Your task to perform on an android device: turn off wifi Image 0: 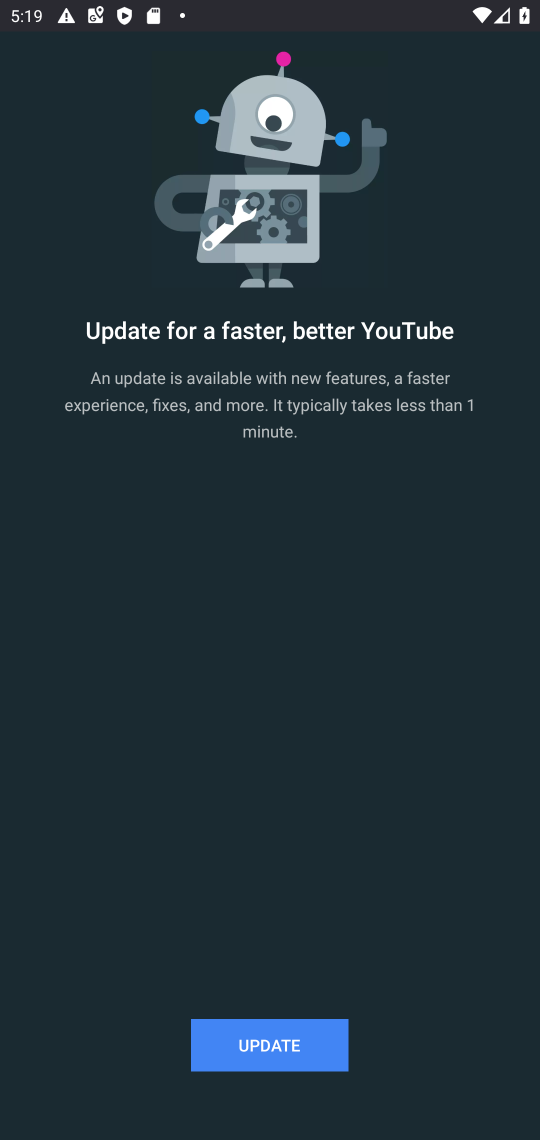
Step 0: press home button
Your task to perform on an android device: turn off wifi Image 1: 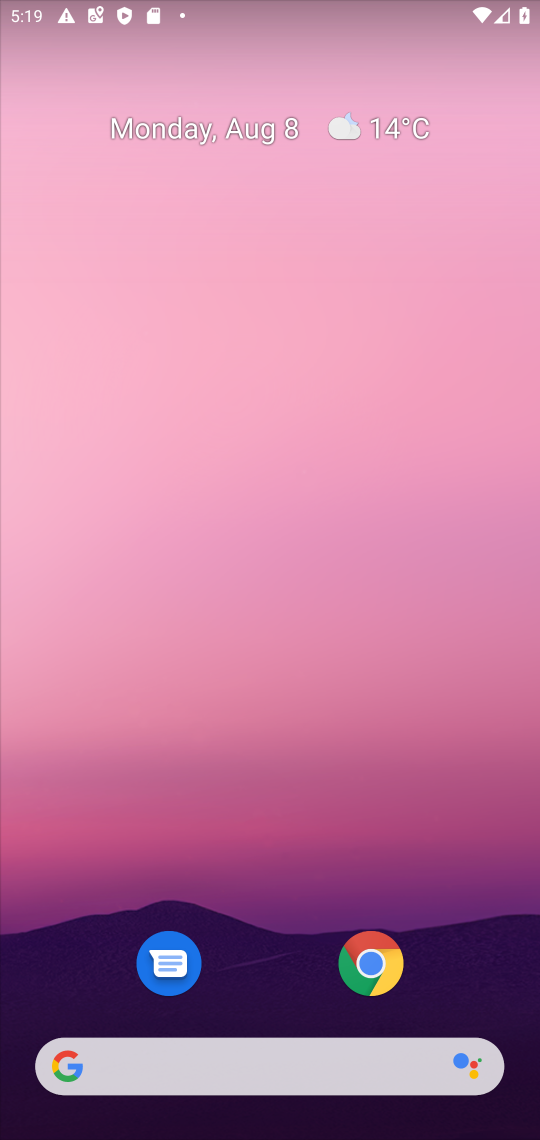
Step 1: drag from (239, 939) to (267, 264)
Your task to perform on an android device: turn off wifi Image 2: 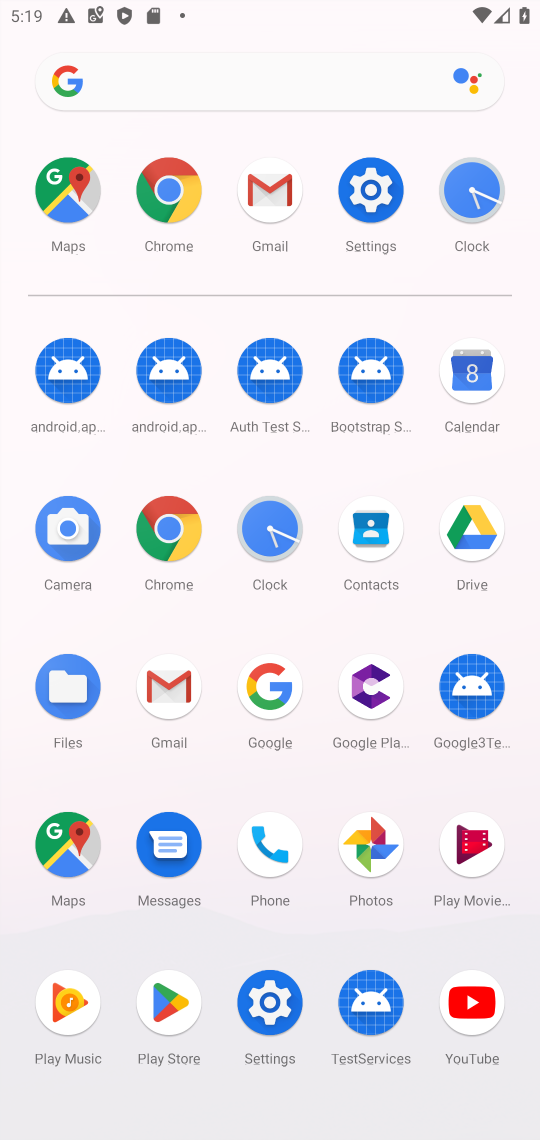
Step 2: click (268, 977)
Your task to perform on an android device: turn off wifi Image 3: 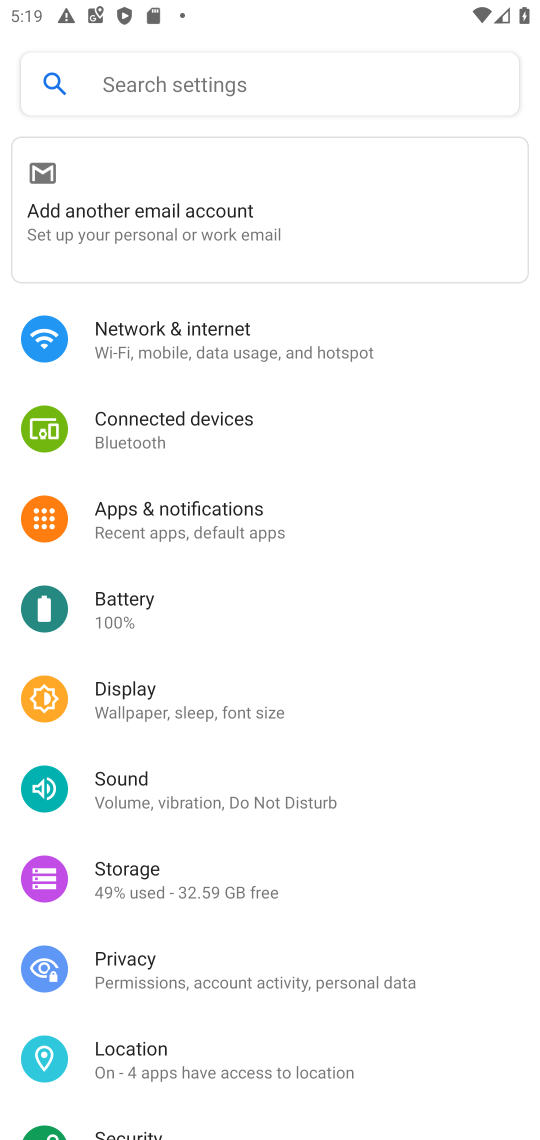
Step 3: click (320, 338)
Your task to perform on an android device: turn off wifi Image 4: 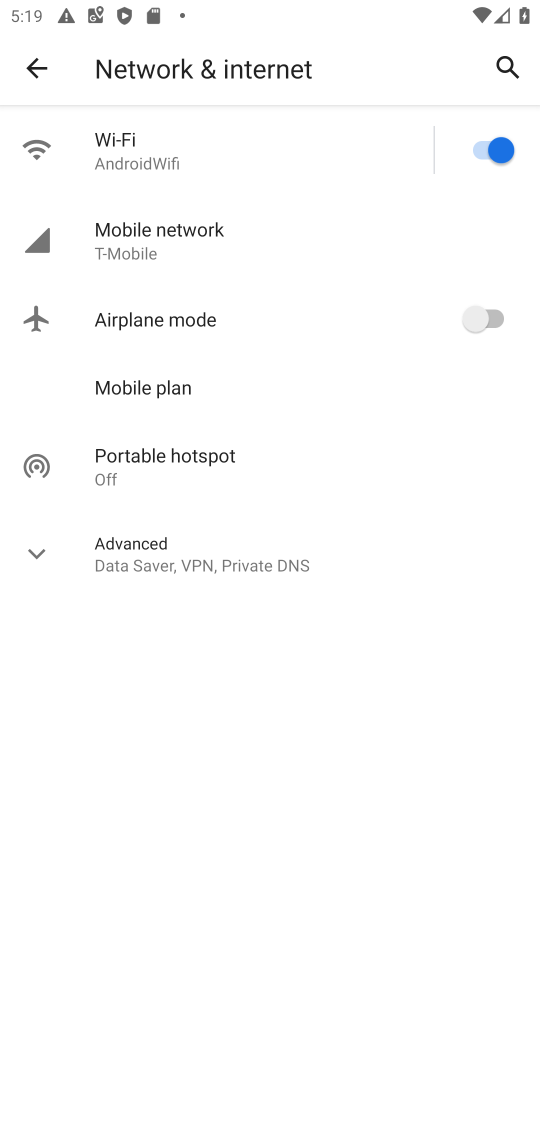
Step 4: click (496, 168)
Your task to perform on an android device: turn off wifi Image 5: 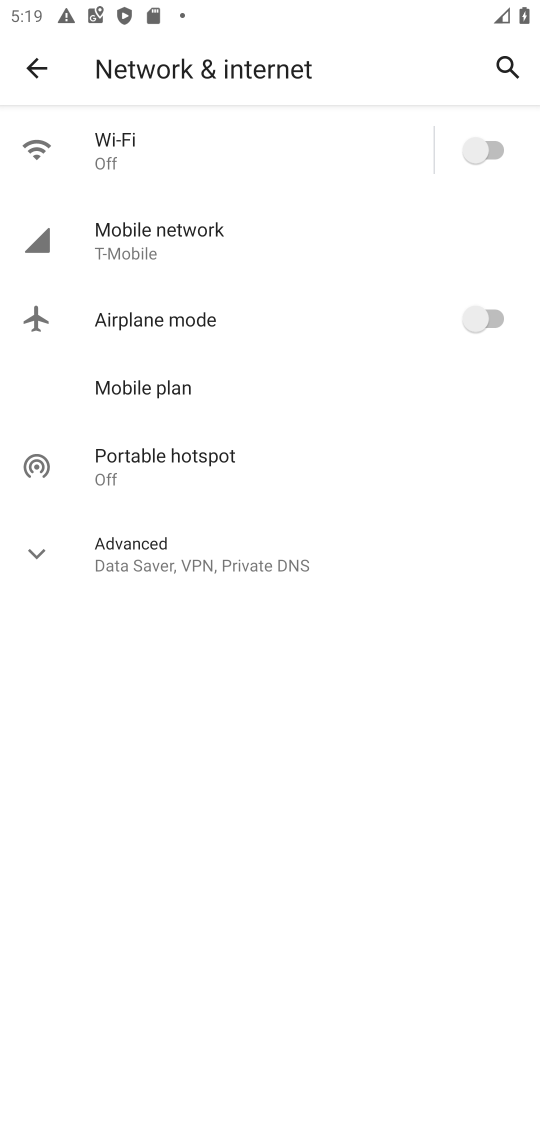
Step 5: task complete